Your task to perform on an android device: change the upload size in google photos Image 0: 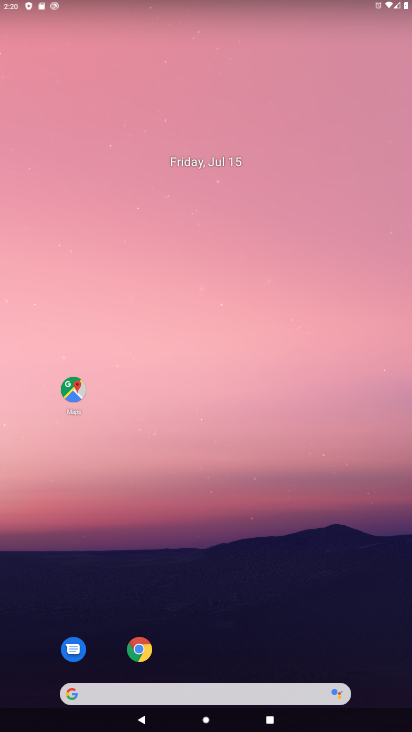
Step 0: drag from (219, 668) to (184, 25)
Your task to perform on an android device: change the upload size in google photos Image 1: 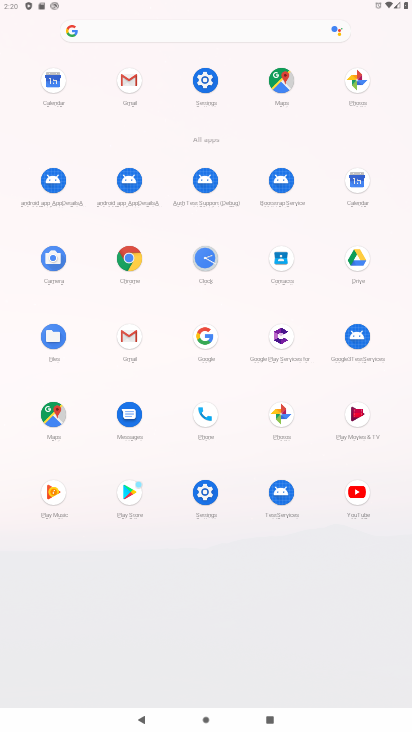
Step 1: click (352, 87)
Your task to perform on an android device: change the upload size in google photos Image 2: 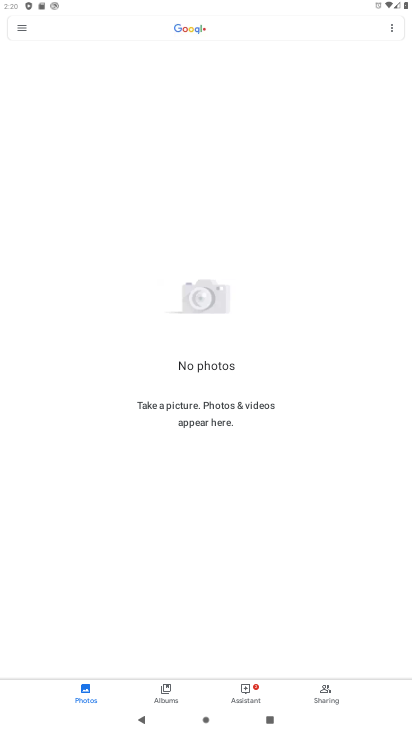
Step 2: click (20, 24)
Your task to perform on an android device: change the upload size in google photos Image 3: 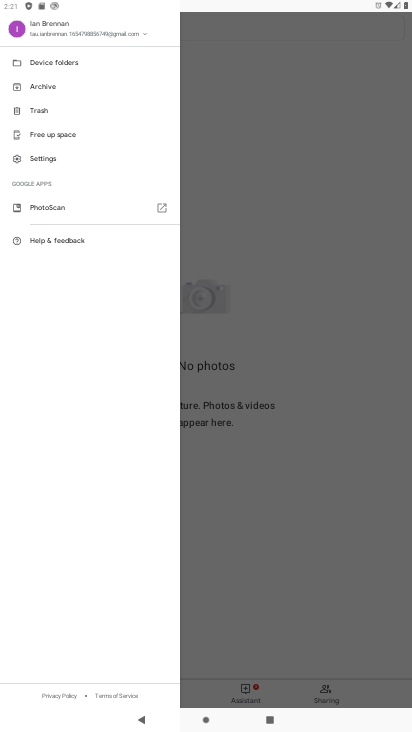
Step 3: click (70, 167)
Your task to perform on an android device: change the upload size in google photos Image 4: 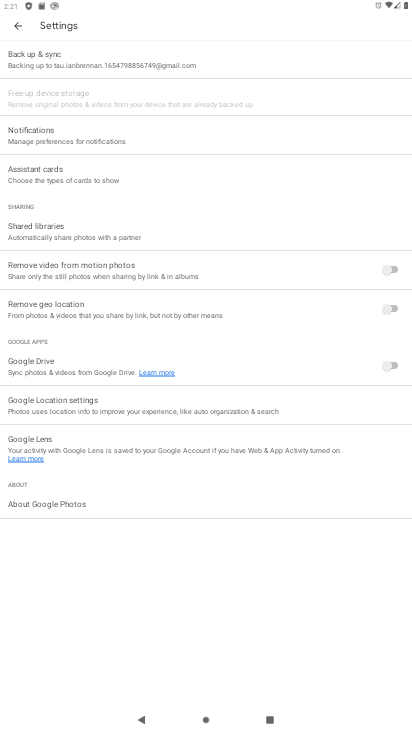
Step 4: click (152, 70)
Your task to perform on an android device: change the upload size in google photos Image 5: 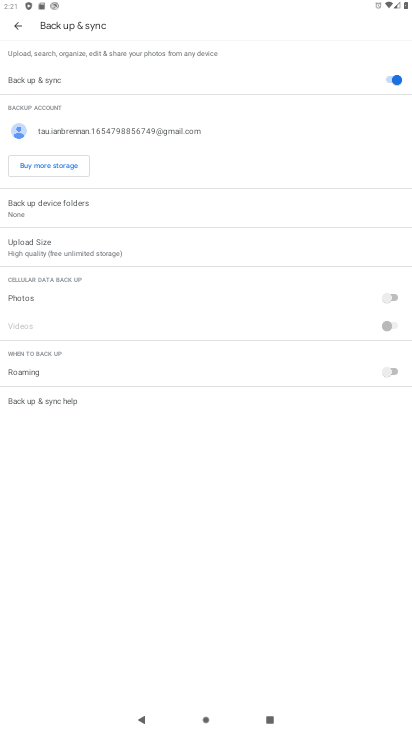
Step 5: click (135, 251)
Your task to perform on an android device: change the upload size in google photos Image 6: 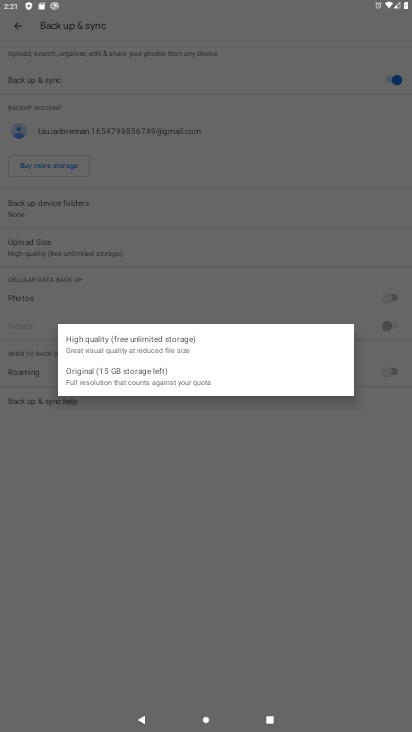
Step 6: click (125, 371)
Your task to perform on an android device: change the upload size in google photos Image 7: 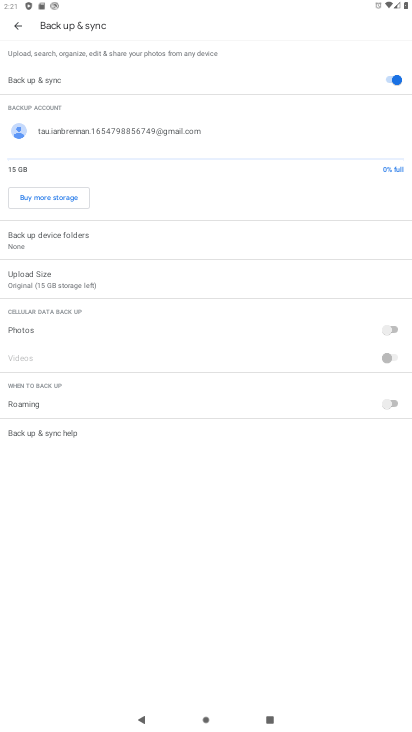
Step 7: task complete